Your task to perform on an android device: toggle priority inbox in the gmail app Image 0: 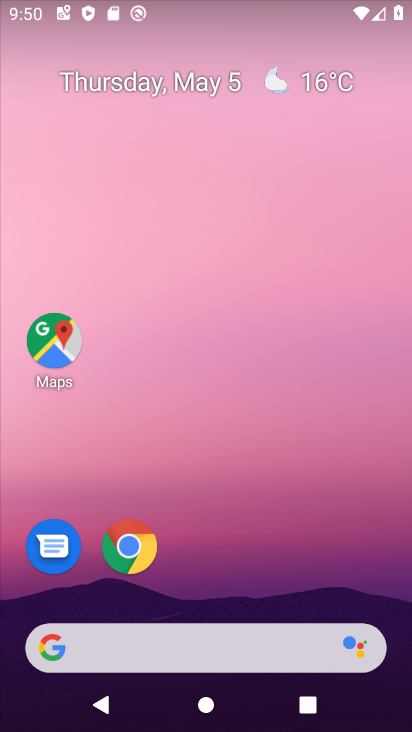
Step 0: drag from (232, 597) to (259, 91)
Your task to perform on an android device: toggle priority inbox in the gmail app Image 1: 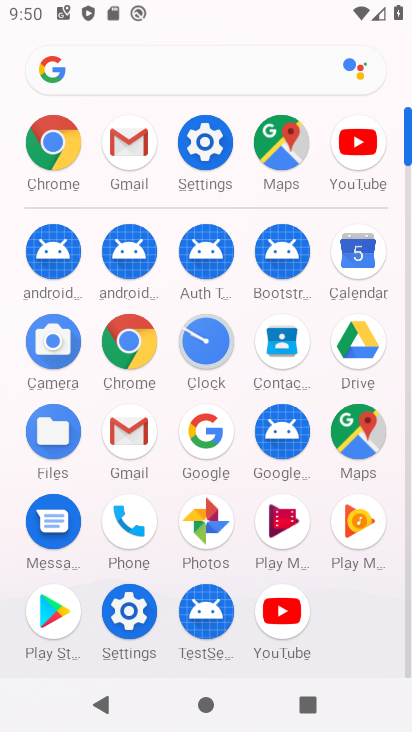
Step 1: click (131, 164)
Your task to perform on an android device: toggle priority inbox in the gmail app Image 2: 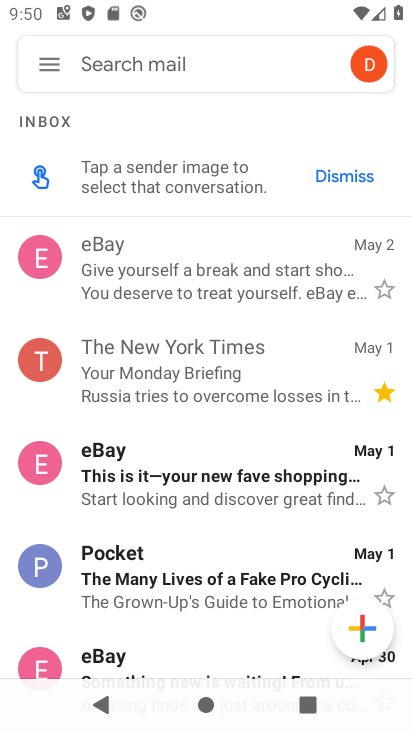
Step 2: click (49, 69)
Your task to perform on an android device: toggle priority inbox in the gmail app Image 3: 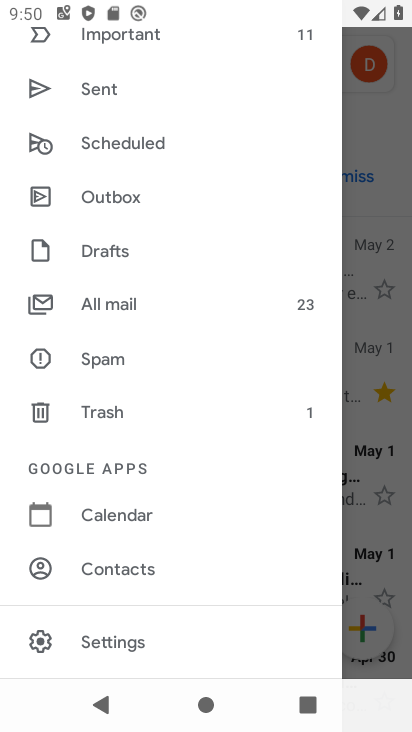
Step 3: click (130, 640)
Your task to perform on an android device: toggle priority inbox in the gmail app Image 4: 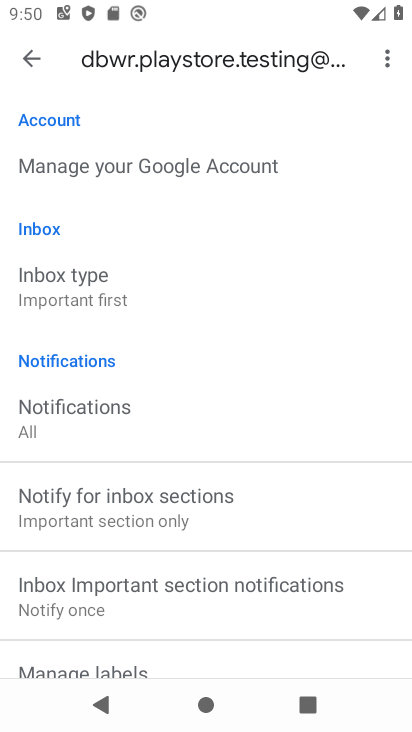
Step 4: click (105, 283)
Your task to perform on an android device: toggle priority inbox in the gmail app Image 5: 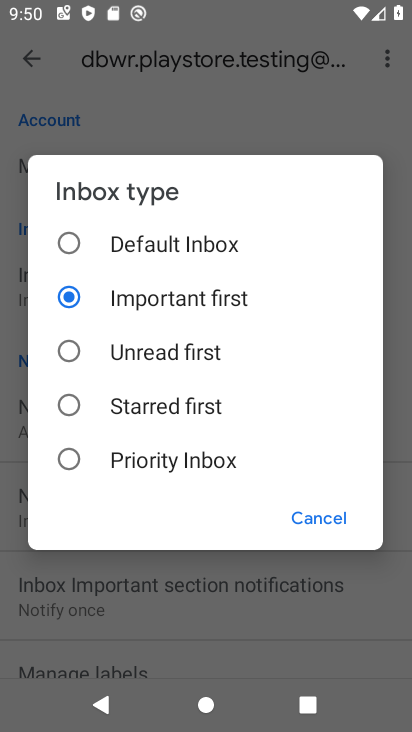
Step 5: click (116, 455)
Your task to perform on an android device: toggle priority inbox in the gmail app Image 6: 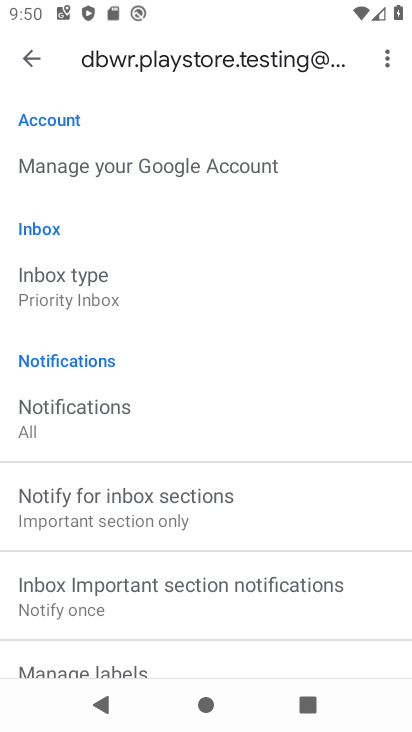
Step 6: task complete